Your task to perform on an android device: Open accessibility settings Image 0: 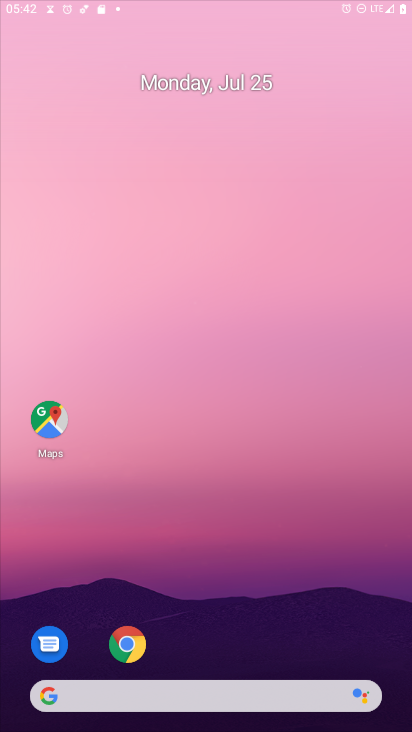
Step 0: press home button
Your task to perform on an android device: Open accessibility settings Image 1: 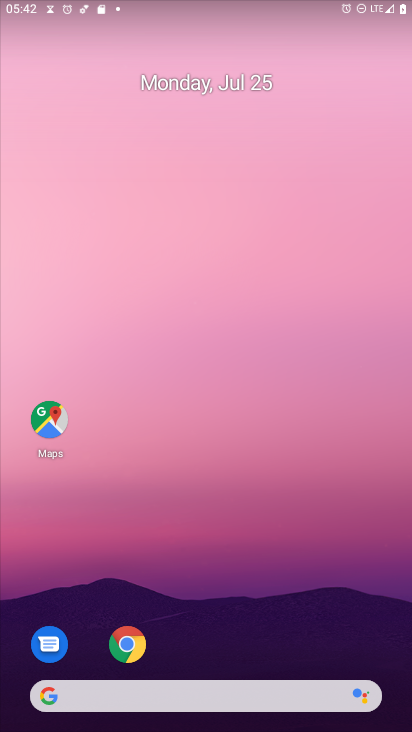
Step 1: drag from (265, 631) to (241, 124)
Your task to perform on an android device: Open accessibility settings Image 2: 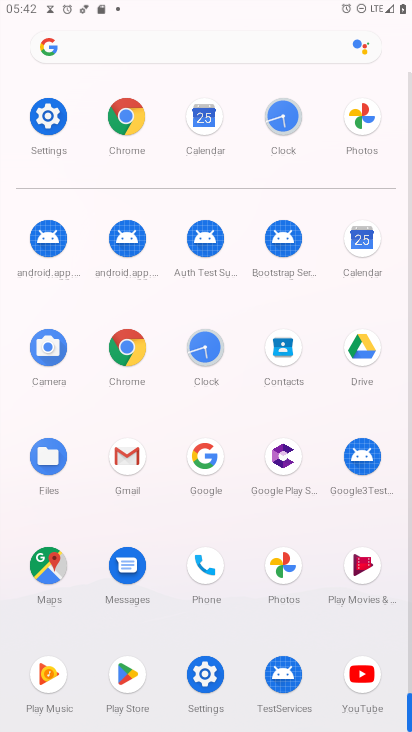
Step 2: click (53, 121)
Your task to perform on an android device: Open accessibility settings Image 3: 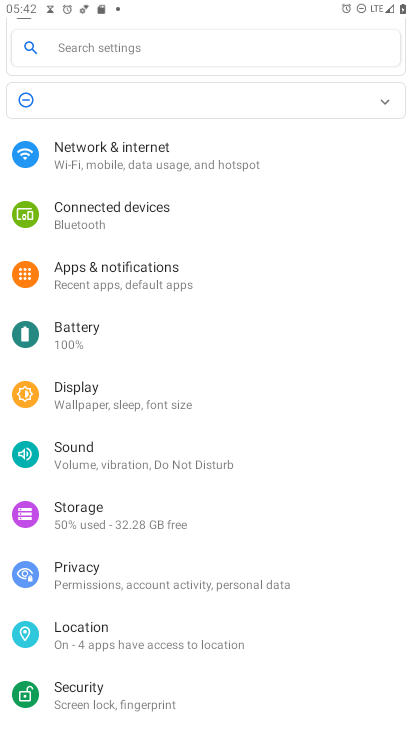
Step 3: drag from (332, 628) to (273, 119)
Your task to perform on an android device: Open accessibility settings Image 4: 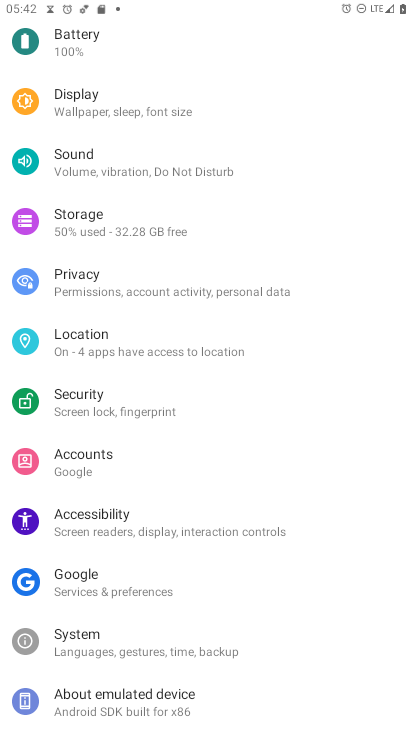
Step 4: click (93, 519)
Your task to perform on an android device: Open accessibility settings Image 5: 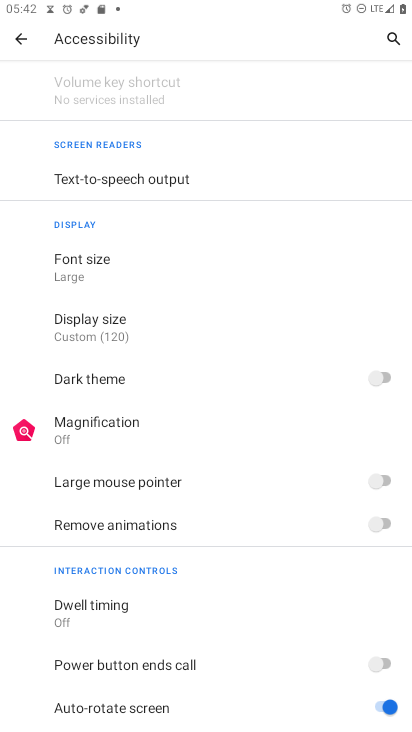
Step 5: task complete